Your task to perform on an android device: turn pop-ups on in chrome Image 0: 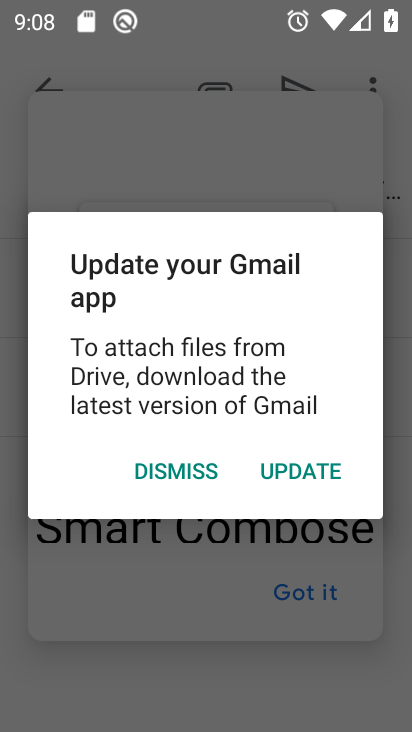
Step 0: press home button
Your task to perform on an android device: turn pop-ups on in chrome Image 1: 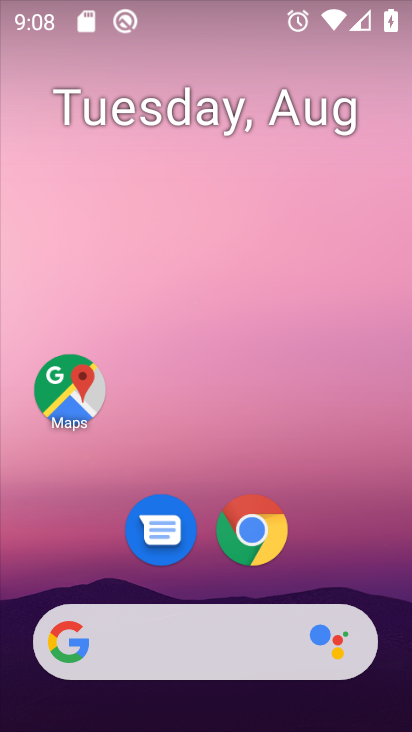
Step 1: drag from (320, 559) to (220, 53)
Your task to perform on an android device: turn pop-ups on in chrome Image 2: 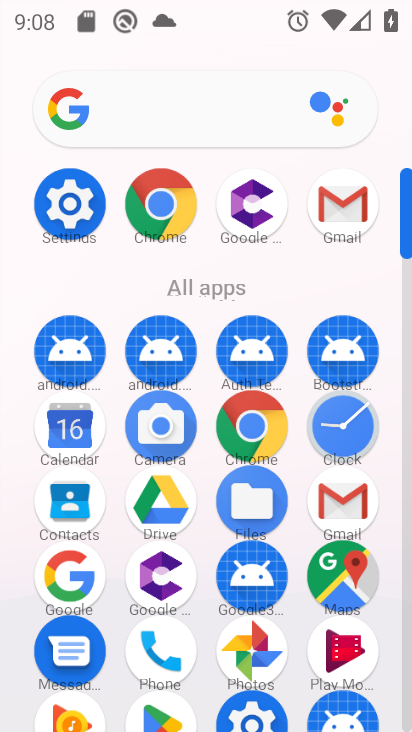
Step 2: click (247, 424)
Your task to perform on an android device: turn pop-ups on in chrome Image 3: 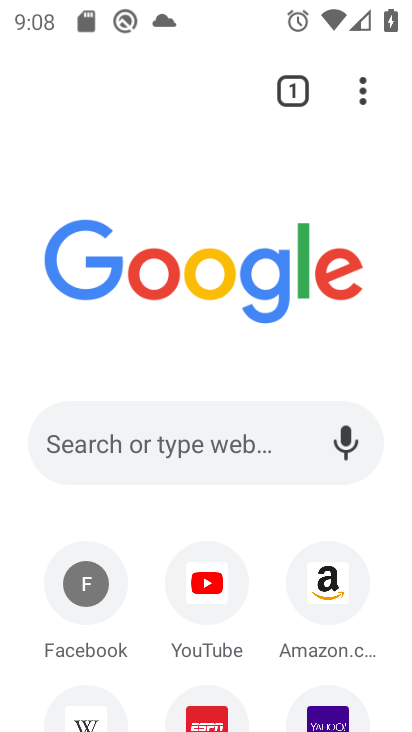
Step 3: drag from (369, 90) to (69, 552)
Your task to perform on an android device: turn pop-ups on in chrome Image 4: 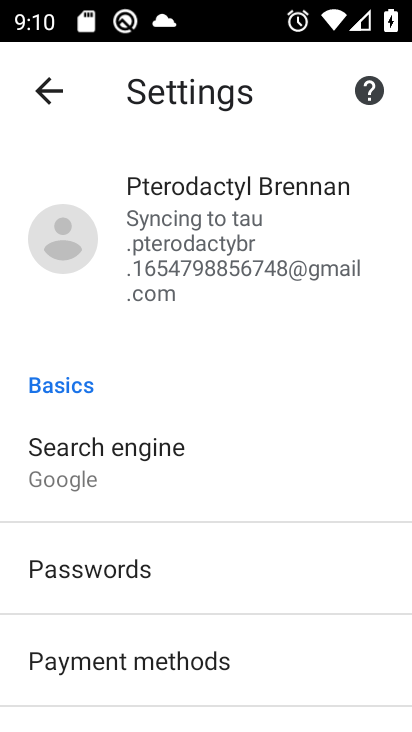
Step 4: drag from (324, 640) to (319, 62)
Your task to perform on an android device: turn pop-ups on in chrome Image 5: 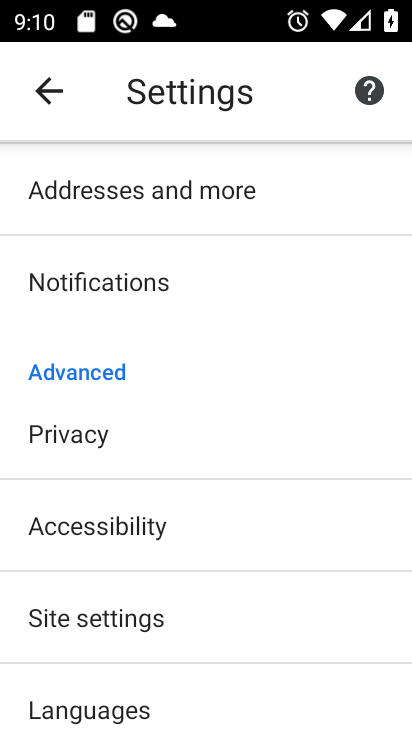
Step 5: drag from (179, 599) to (244, 226)
Your task to perform on an android device: turn pop-ups on in chrome Image 6: 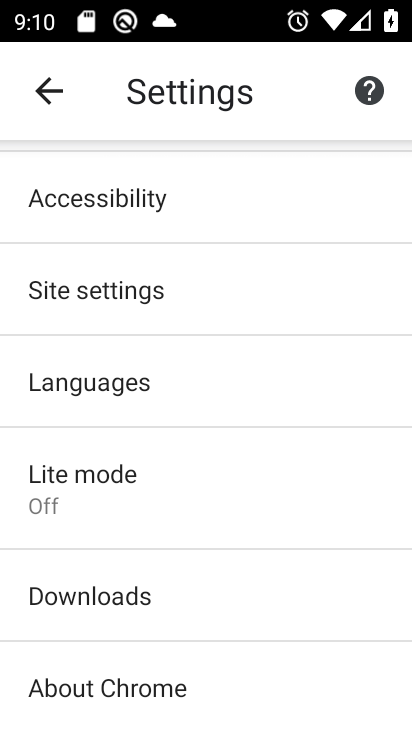
Step 6: click (142, 283)
Your task to perform on an android device: turn pop-ups on in chrome Image 7: 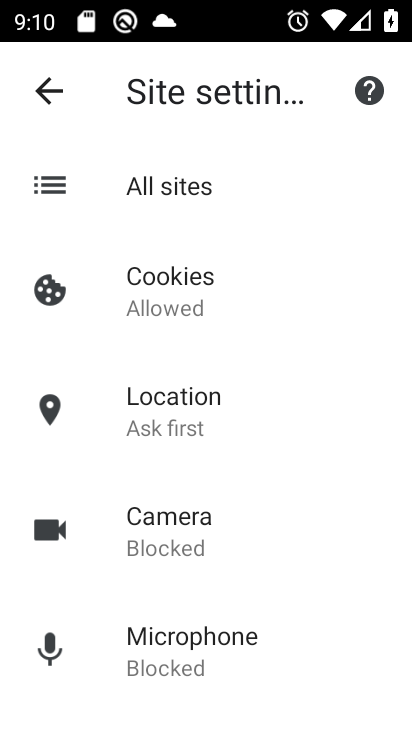
Step 7: drag from (284, 630) to (338, 121)
Your task to perform on an android device: turn pop-ups on in chrome Image 8: 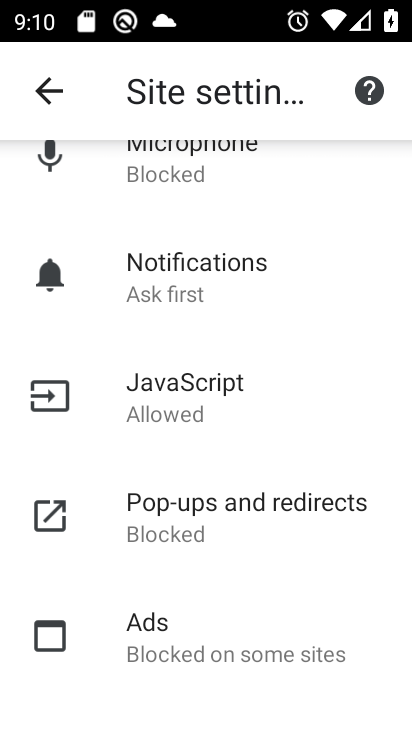
Step 8: click (235, 511)
Your task to perform on an android device: turn pop-ups on in chrome Image 9: 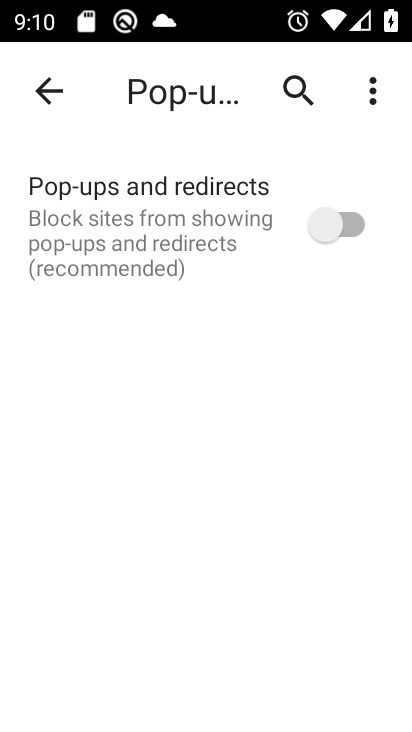
Step 9: click (343, 232)
Your task to perform on an android device: turn pop-ups on in chrome Image 10: 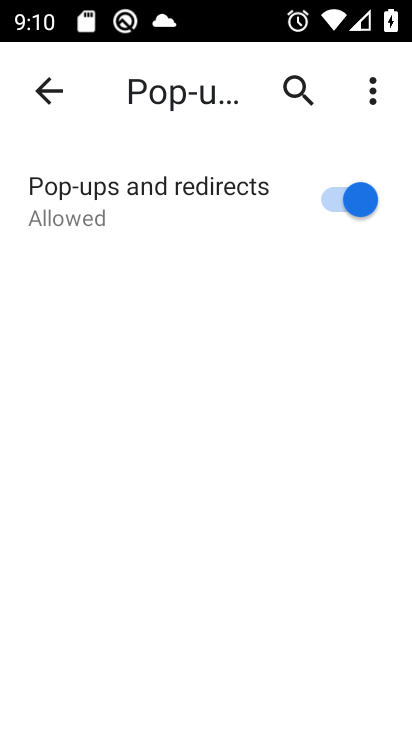
Step 10: task complete